Your task to perform on an android device: find photos in the google photos app Image 0: 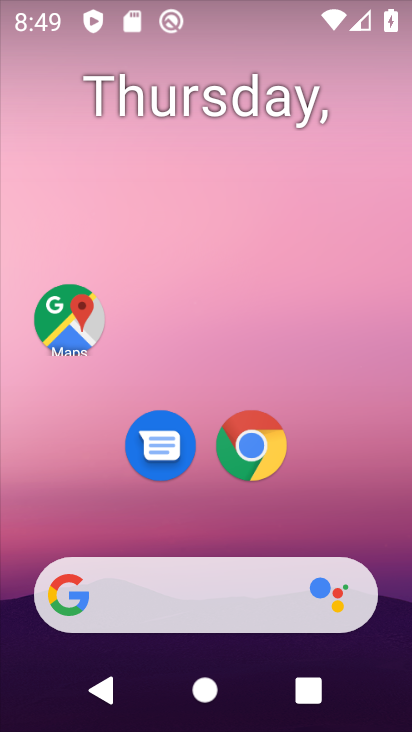
Step 0: drag from (393, 513) to (390, 57)
Your task to perform on an android device: find photos in the google photos app Image 1: 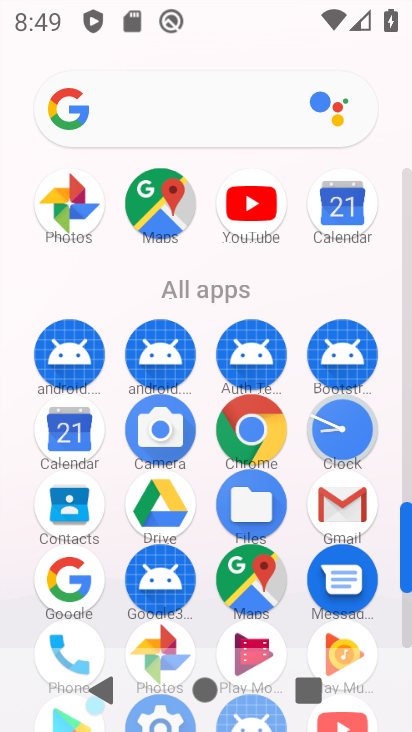
Step 1: click (61, 200)
Your task to perform on an android device: find photos in the google photos app Image 2: 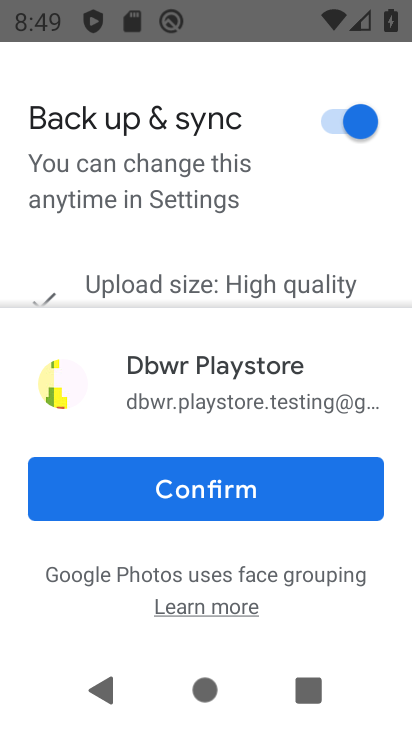
Step 2: click (203, 476)
Your task to perform on an android device: find photos in the google photos app Image 3: 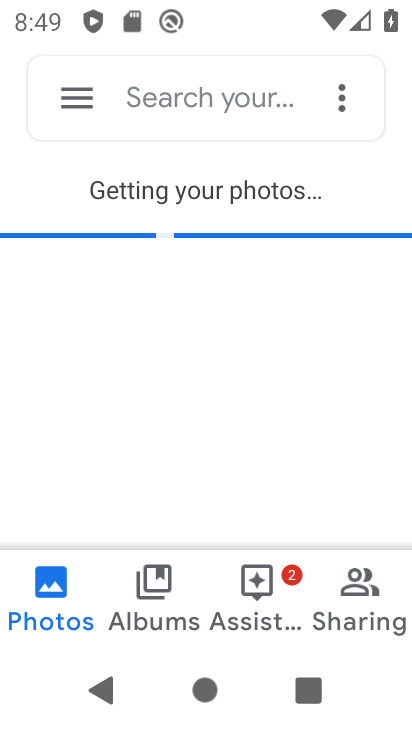
Step 3: click (53, 588)
Your task to perform on an android device: find photos in the google photos app Image 4: 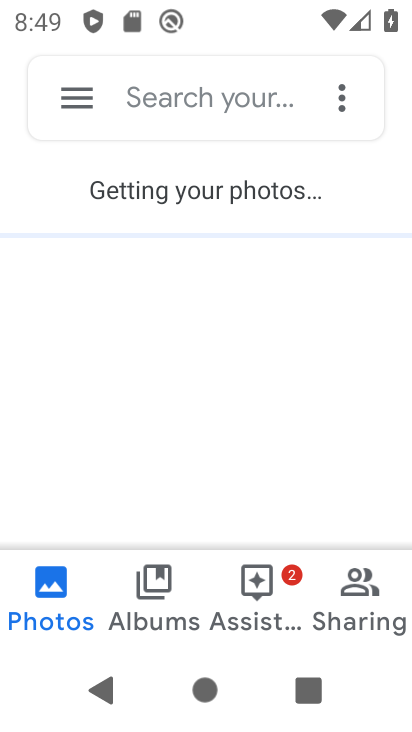
Step 4: task complete